Your task to perform on an android device: Open wifi settings Image 0: 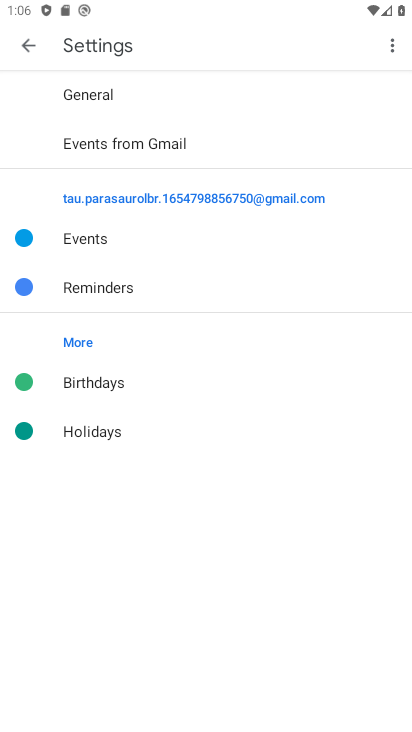
Step 0: press home button
Your task to perform on an android device: Open wifi settings Image 1: 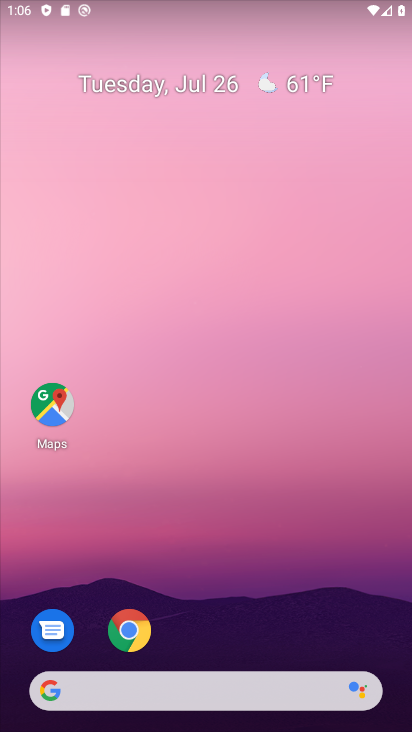
Step 1: drag from (274, 550) to (243, 95)
Your task to perform on an android device: Open wifi settings Image 2: 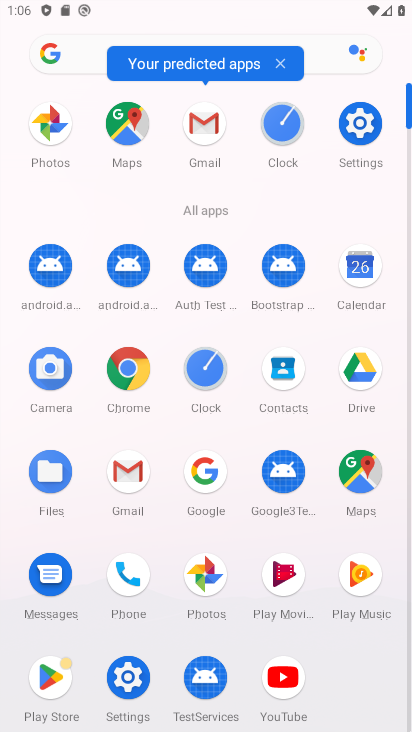
Step 2: click (365, 139)
Your task to perform on an android device: Open wifi settings Image 3: 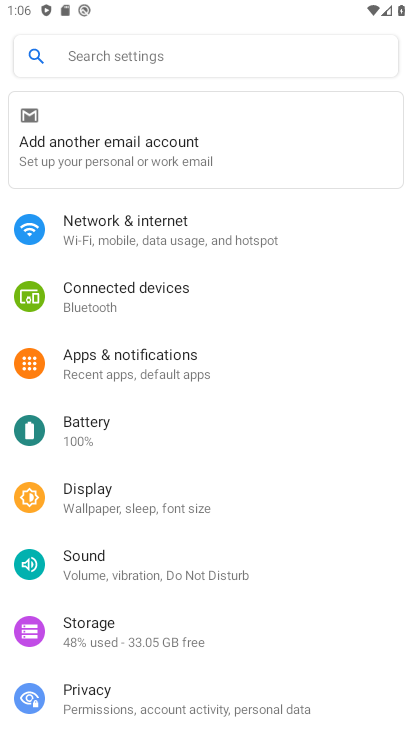
Step 3: click (181, 224)
Your task to perform on an android device: Open wifi settings Image 4: 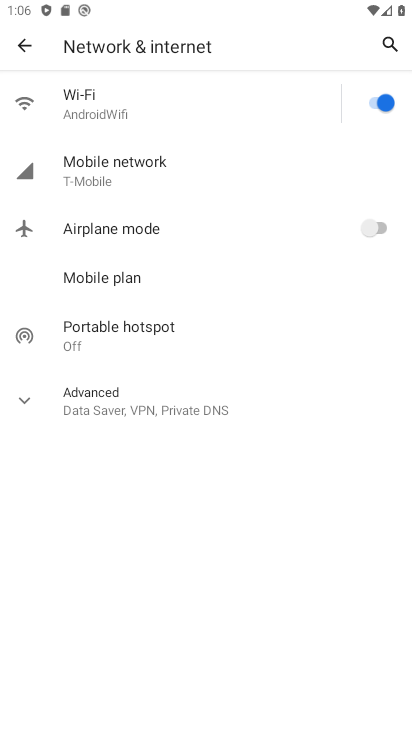
Step 4: click (197, 95)
Your task to perform on an android device: Open wifi settings Image 5: 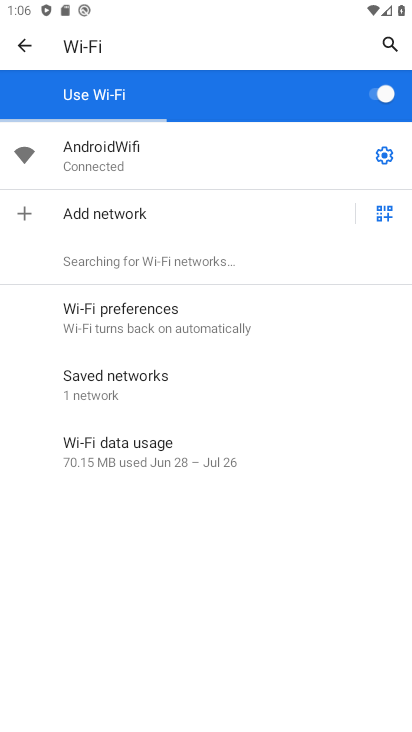
Step 5: task complete